Your task to perform on an android device: turn pop-ups off in chrome Image 0: 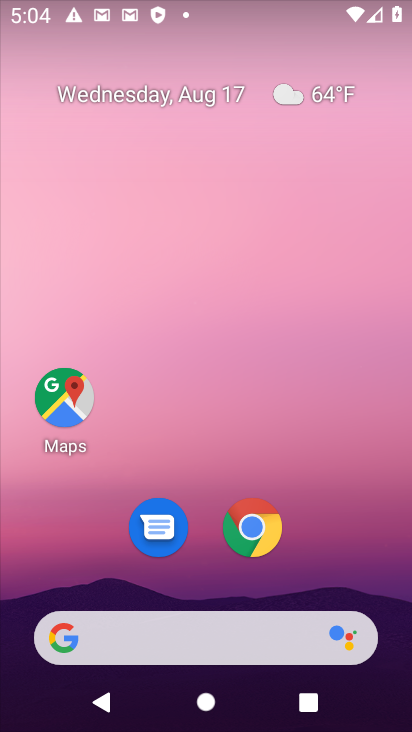
Step 0: click (270, 526)
Your task to perform on an android device: turn pop-ups off in chrome Image 1: 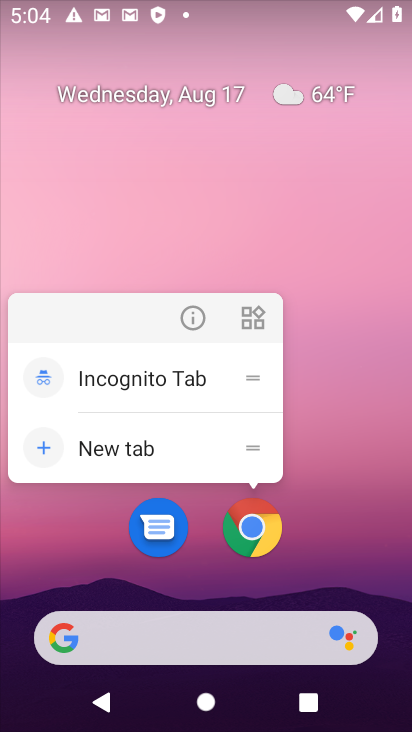
Step 1: click (264, 526)
Your task to perform on an android device: turn pop-ups off in chrome Image 2: 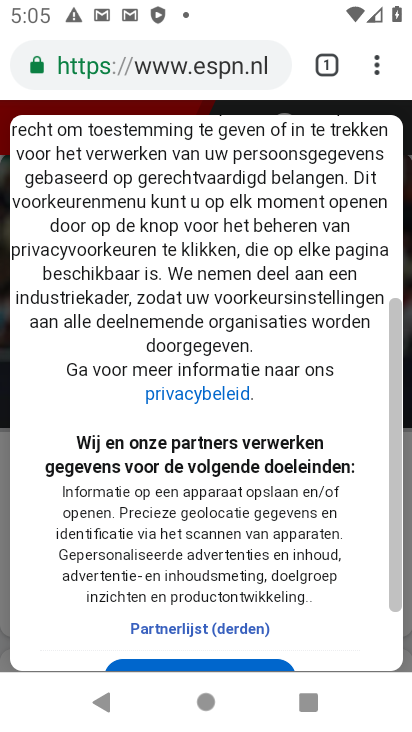
Step 2: drag from (330, 81) to (266, 547)
Your task to perform on an android device: turn pop-ups off in chrome Image 3: 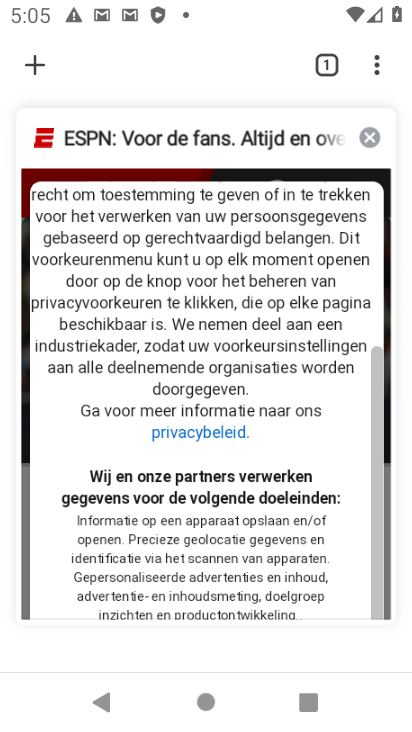
Step 3: click (373, 67)
Your task to perform on an android device: turn pop-ups off in chrome Image 4: 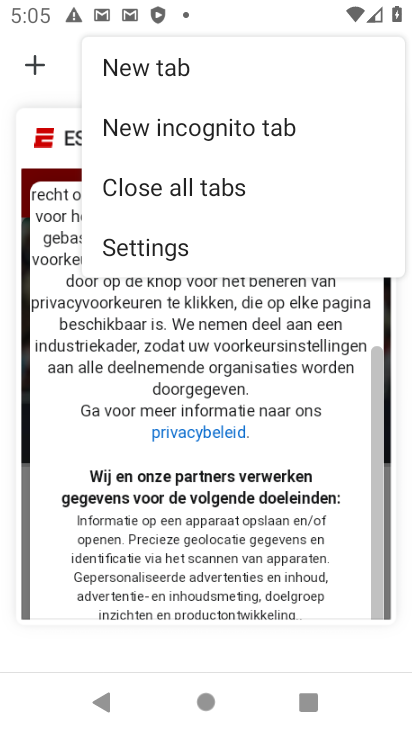
Step 4: click (162, 238)
Your task to perform on an android device: turn pop-ups off in chrome Image 5: 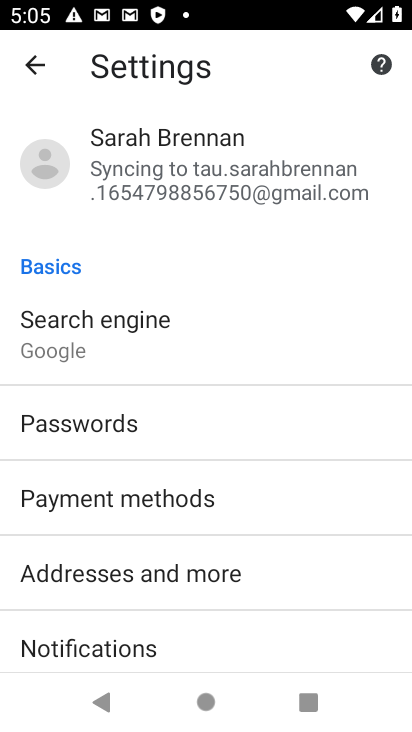
Step 5: drag from (98, 672) to (113, 350)
Your task to perform on an android device: turn pop-ups off in chrome Image 6: 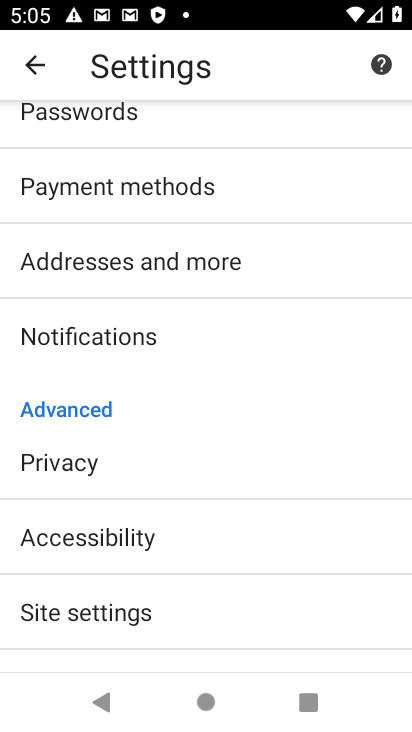
Step 6: click (29, 605)
Your task to perform on an android device: turn pop-ups off in chrome Image 7: 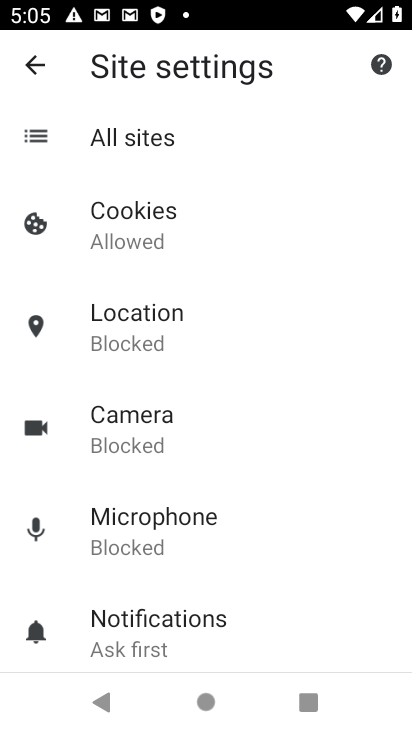
Step 7: drag from (104, 607) to (114, 303)
Your task to perform on an android device: turn pop-ups off in chrome Image 8: 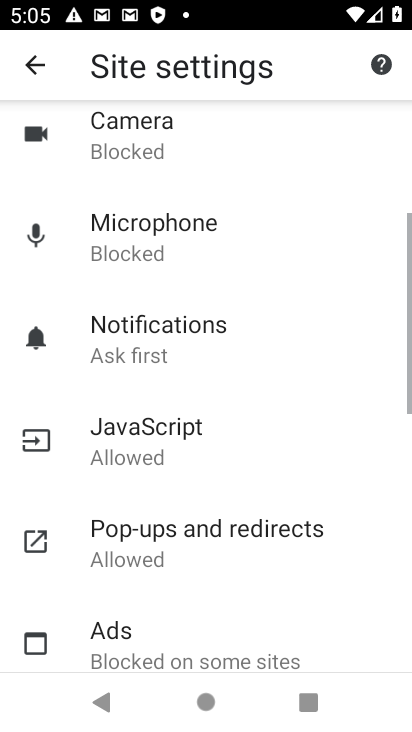
Step 8: click (97, 549)
Your task to perform on an android device: turn pop-ups off in chrome Image 9: 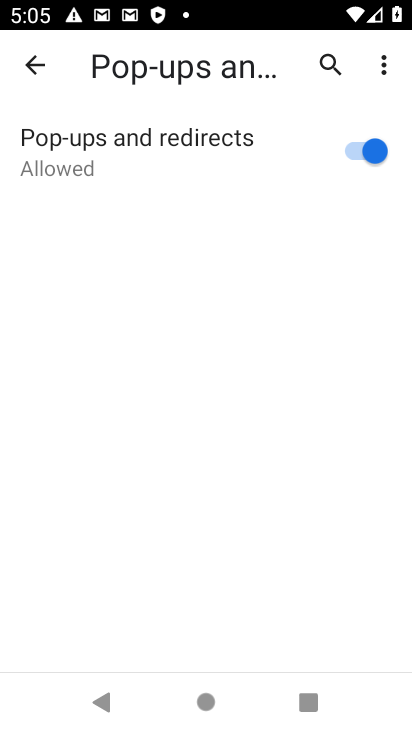
Step 9: click (369, 154)
Your task to perform on an android device: turn pop-ups off in chrome Image 10: 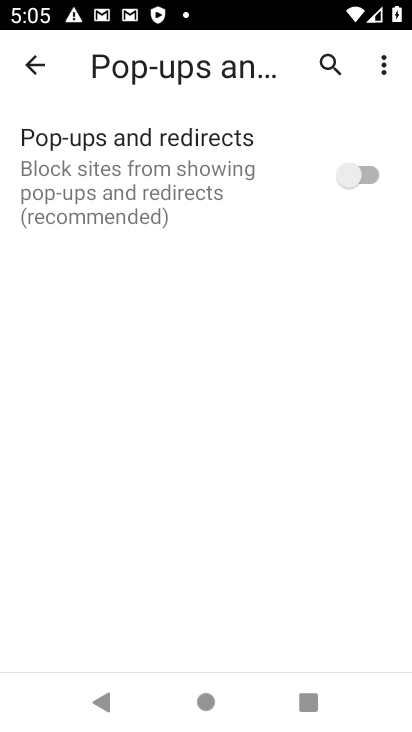
Step 10: task complete